Your task to perform on an android device: Open maps Image 0: 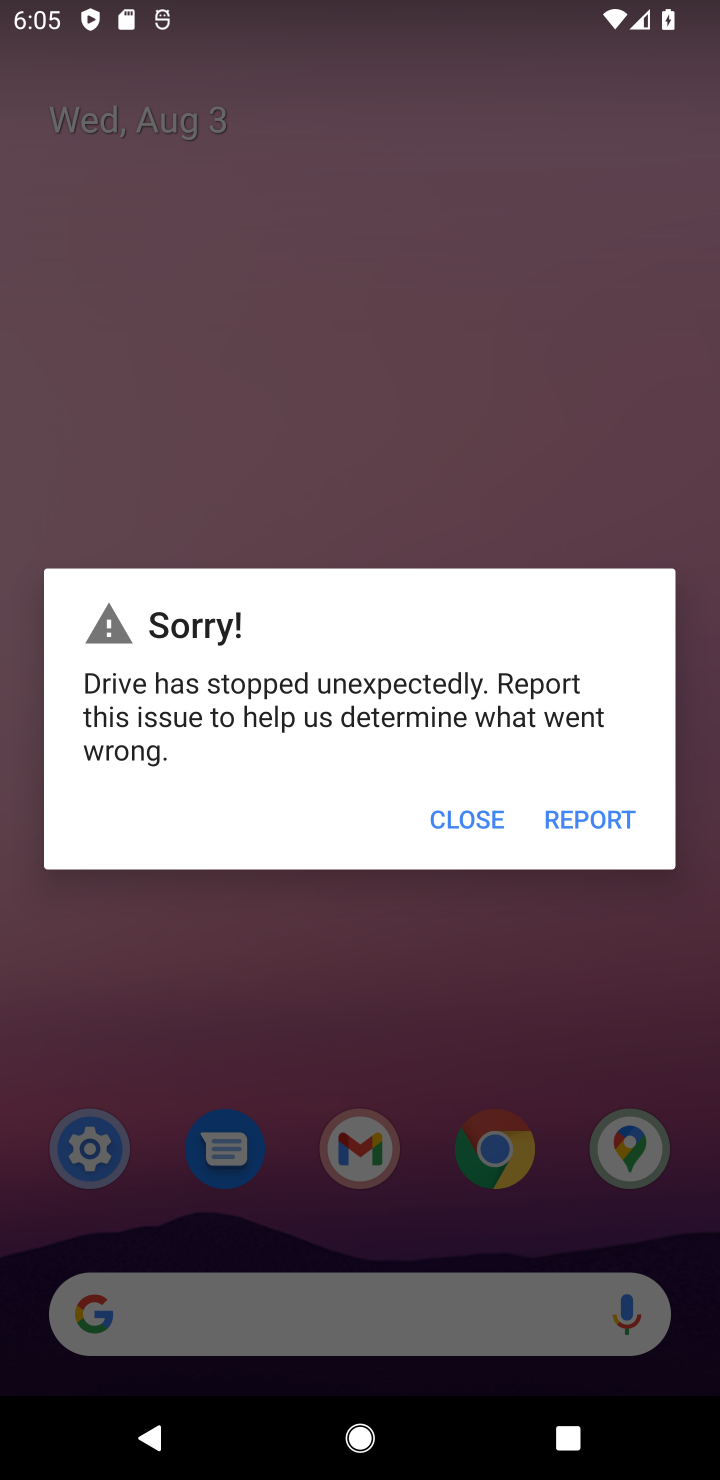
Step 0: click (442, 821)
Your task to perform on an android device: Open maps Image 1: 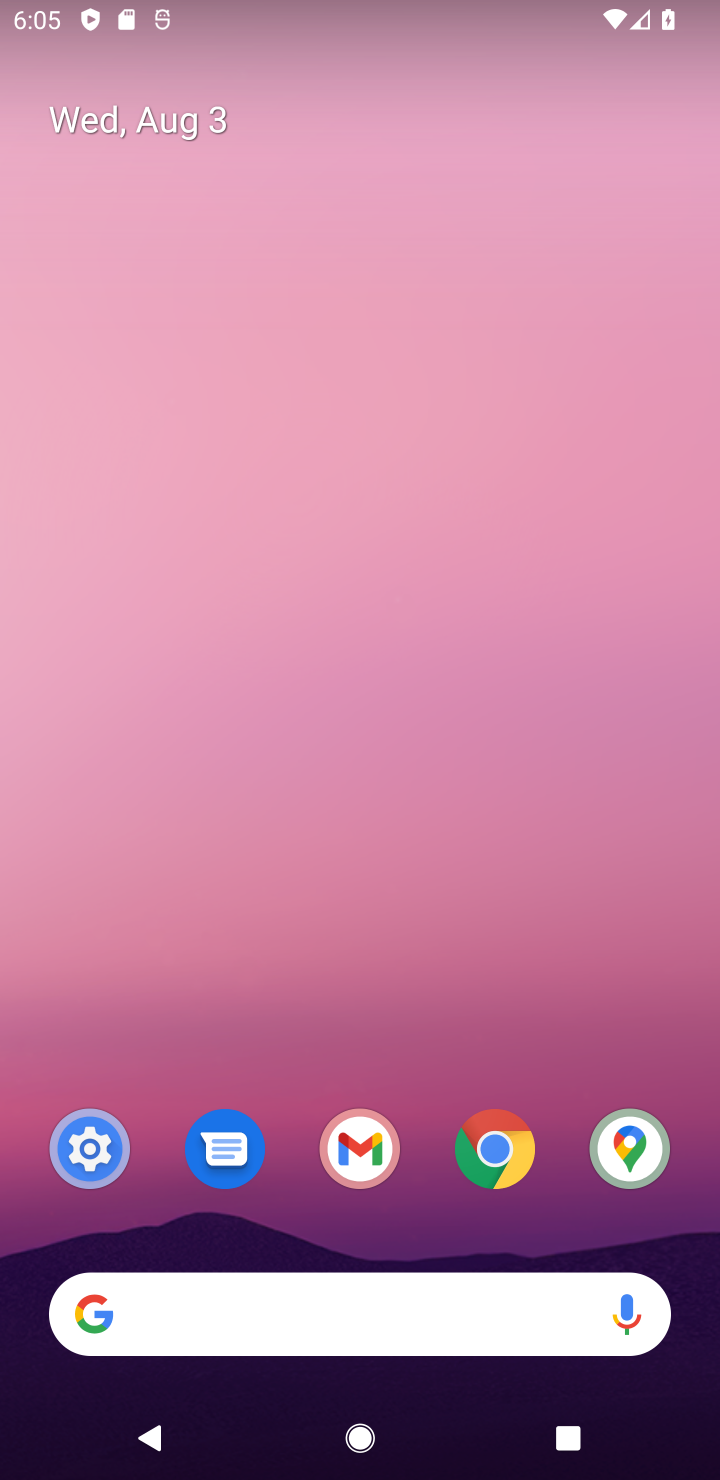
Step 1: drag from (291, 1282) to (260, 167)
Your task to perform on an android device: Open maps Image 2: 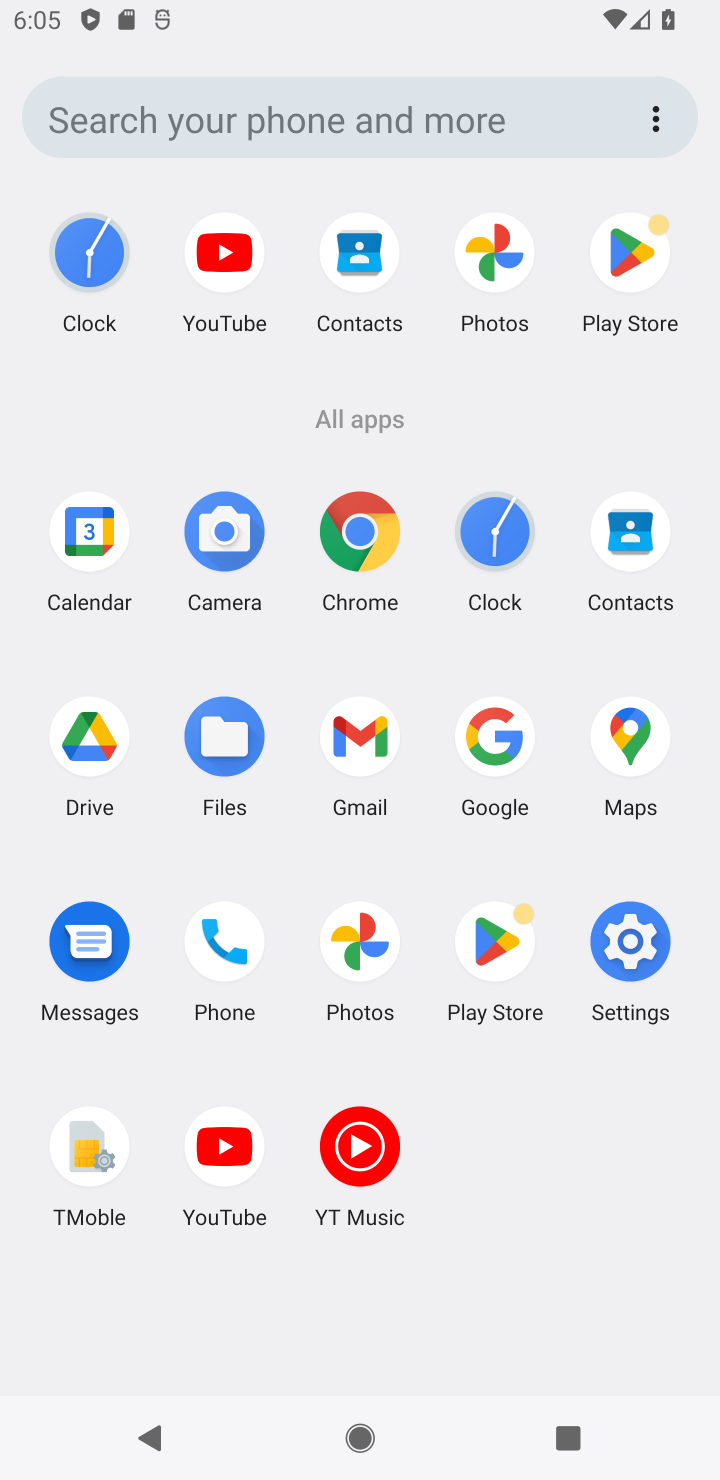
Step 2: click (621, 736)
Your task to perform on an android device: Open maps Image 3: 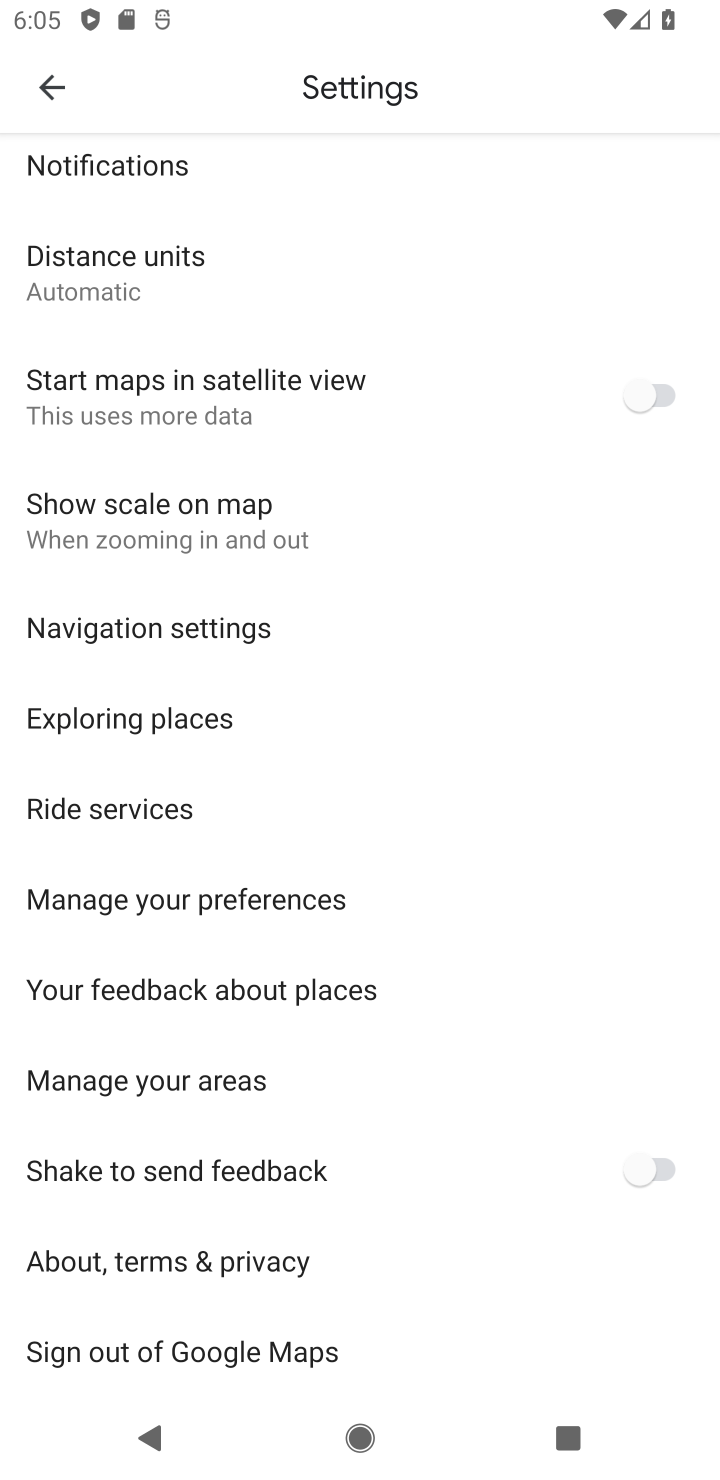
Step 3: task complete